Your task to perform on an android device: Go to Yahoo.com Image 0: 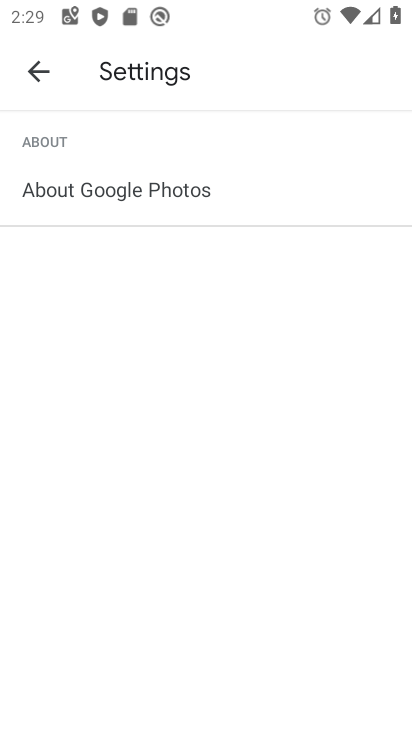
Step 0: press home button
Your task to perform on an android device: Go to Yahoo.com Image 1: 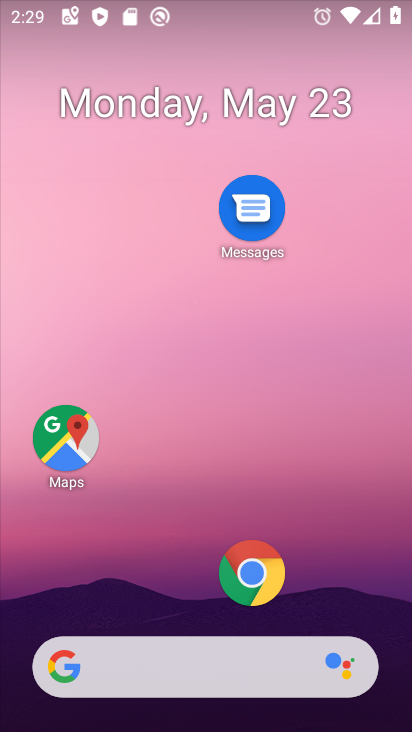
Step 1: drag from (306, 596) to (310, 26)
Your task to perform on an android device: Go to Yahoo.com Image 2: 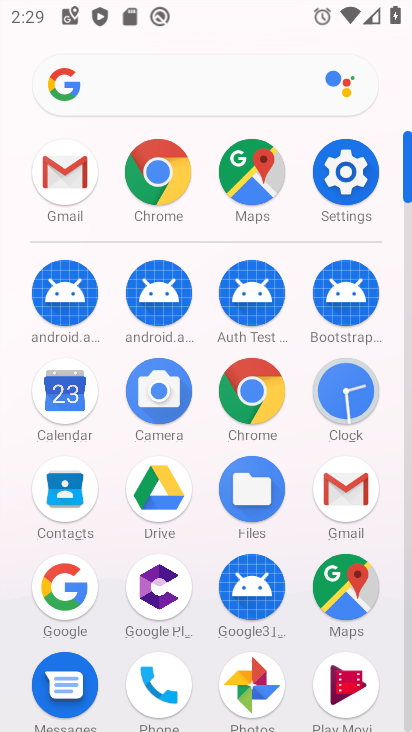
Step 2: click (255, 397)
Your task to perform on an android device: Go to Yahoo.com Image 3: 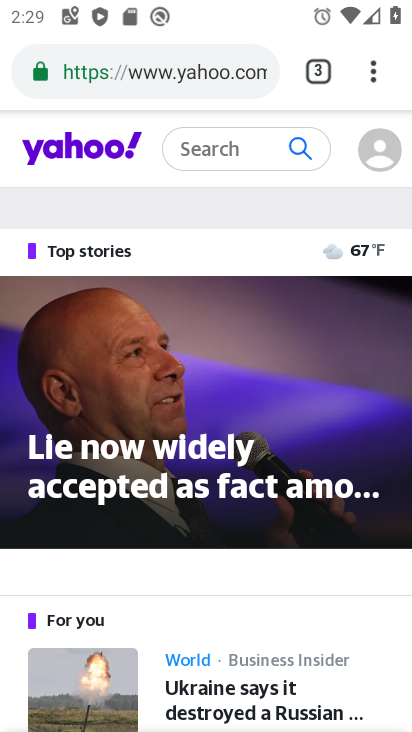
Step 3: press home button
Your task to perform on an android device: Go to Yahoo.com Image 4: 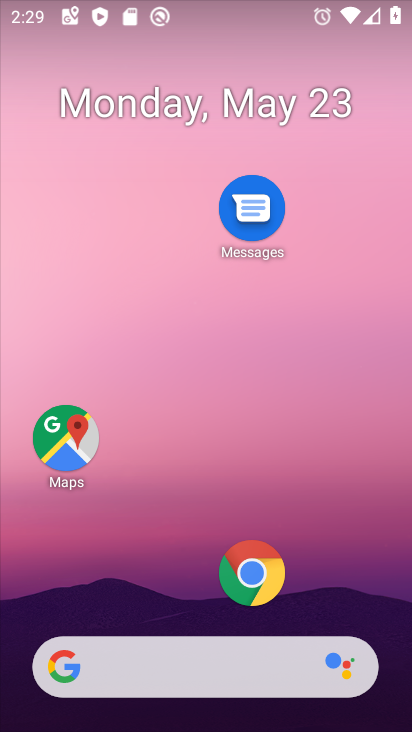
Step 4: drag from (324, 670) to (330, 50)
Your task to perform on an android device: Go to Yahoo.com Image 5: 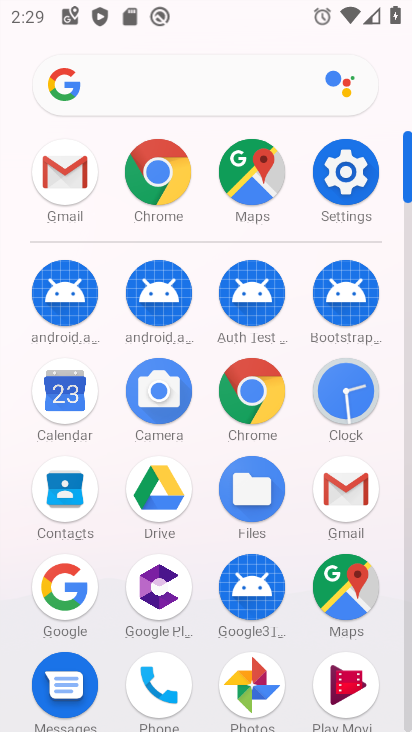
Step 5: click (268, 391)
Your task to perform on an android device: Go to Yahoo.com Image 6: 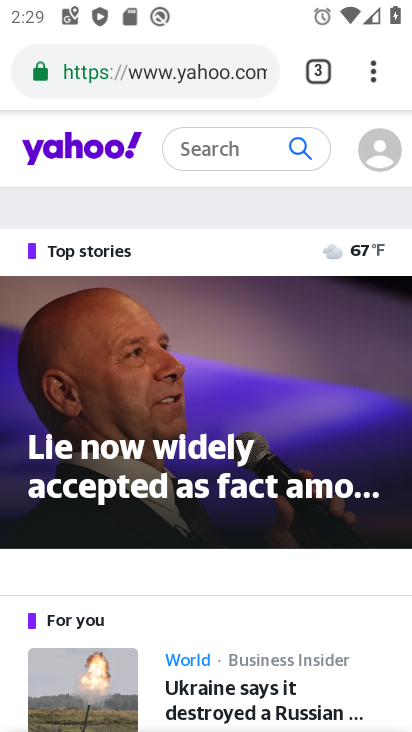
Step 6: task complete